Your task to perform on an android device: change text size in settings app Image 0: 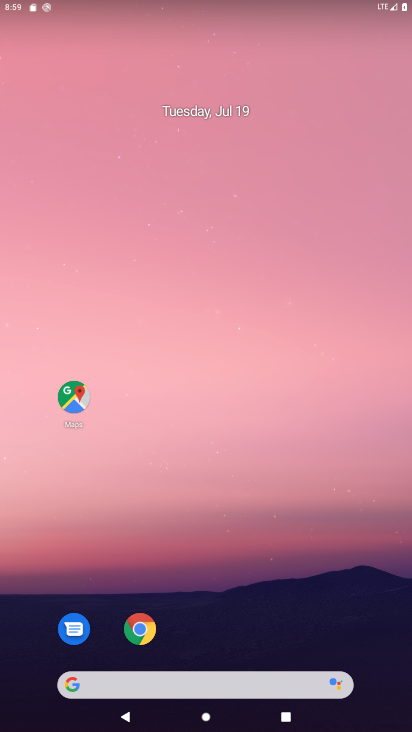
Step 0: drag from (241, 665) to (218, 1)
Your task to perform on an android device: change text size in settings app Image 1: 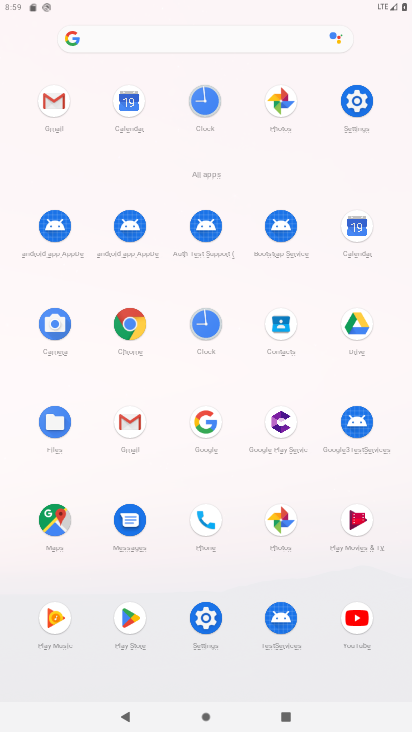
Step 1: click (348, 107)
Your task to perform on an android device: change text size in settings app Image 2: 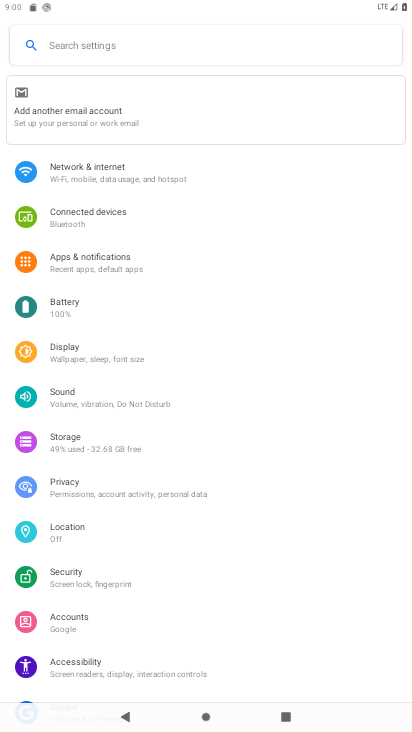
Step 2: click (78, 364)
Your task to perform on an android device: change text size in settings app Image 3: 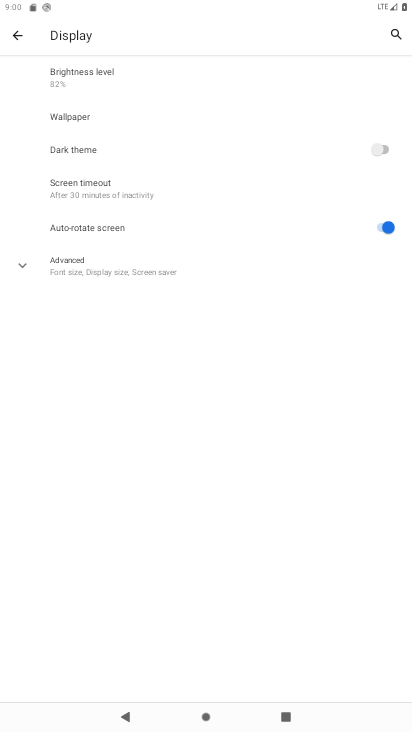
Step 3: click (72, 257)
Your task to perform on an android device: change text size in settings app Image 4: 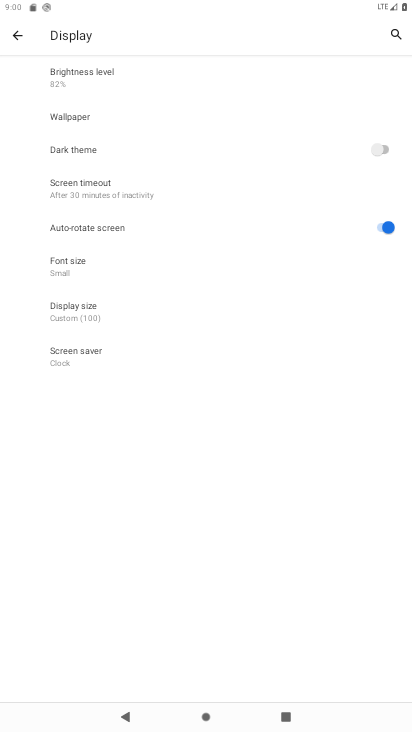
Step 4: click (72, 257)
Your task to perform on an android device: change text size in settings app Image 5: 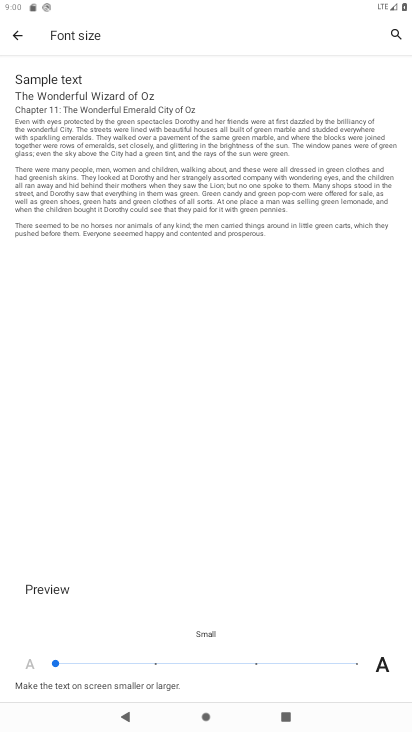
Step 5: click (154, 661)
Your task to perform on an android device: change text size in settings app Image 6: 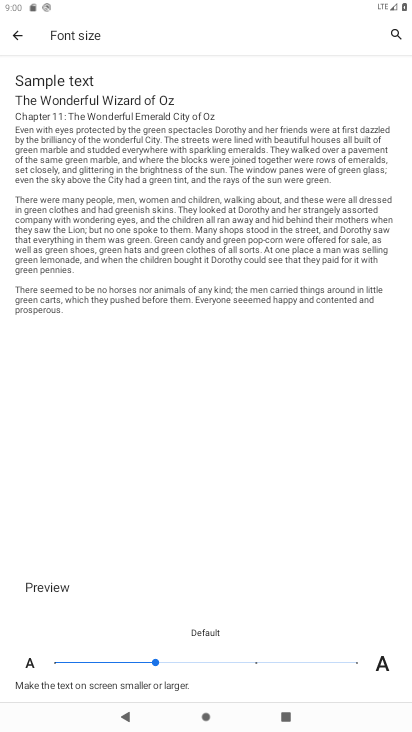
Step 6: task complete